Your task to perform on an android device: Go to privacy settings Image 0: 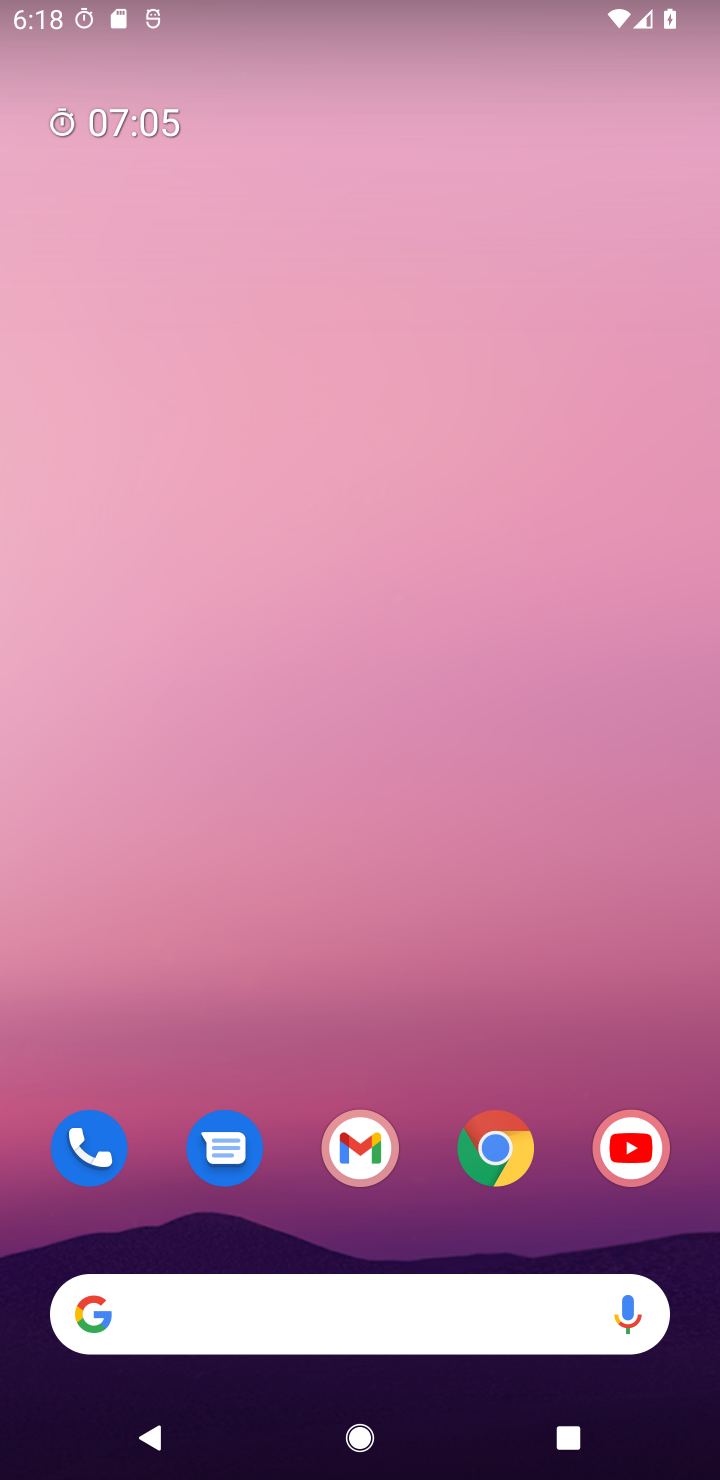
Step 0: drag from (353, 1233) to (447, 103)
Your task to perform on an android device: Go to privacy settings Image 1: 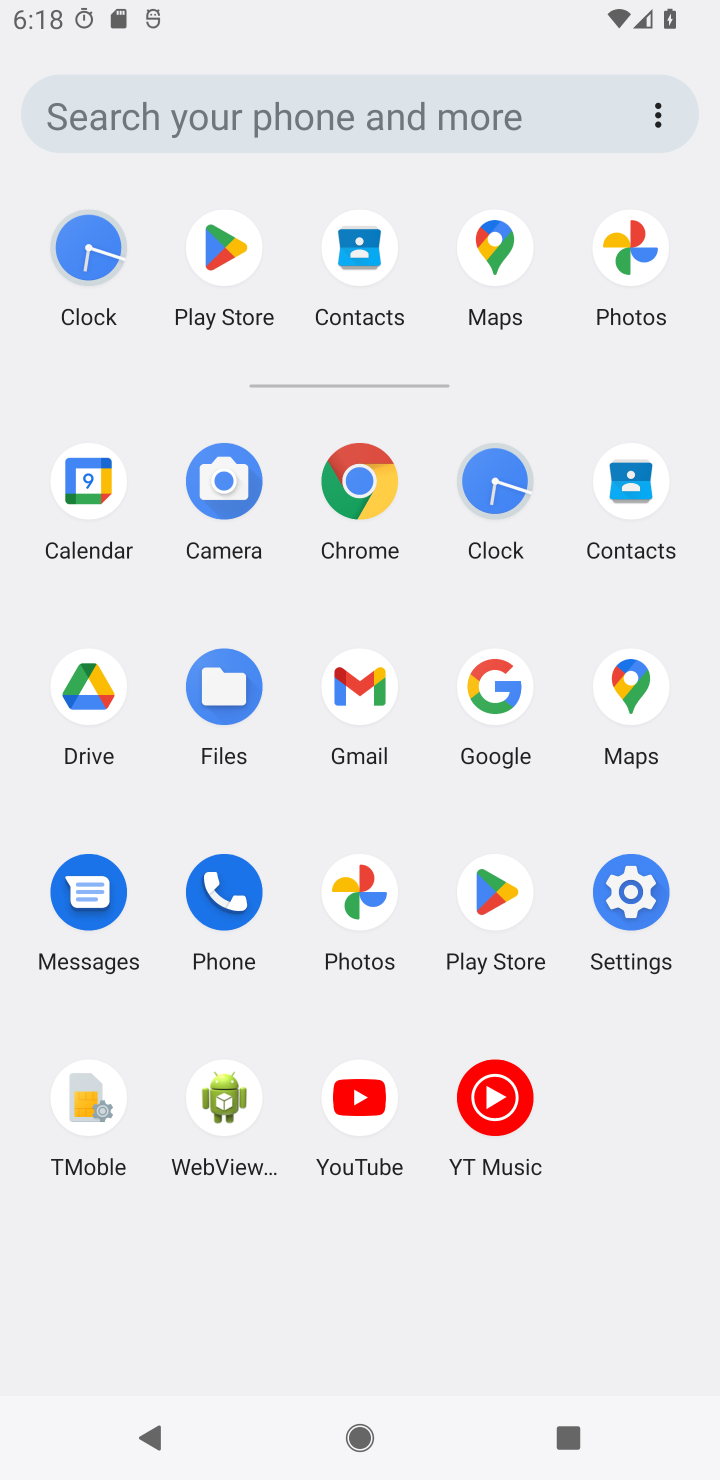
Step 1: click (646, 923)
Your task to perform on an android device: Go to privacy settings Image 2: 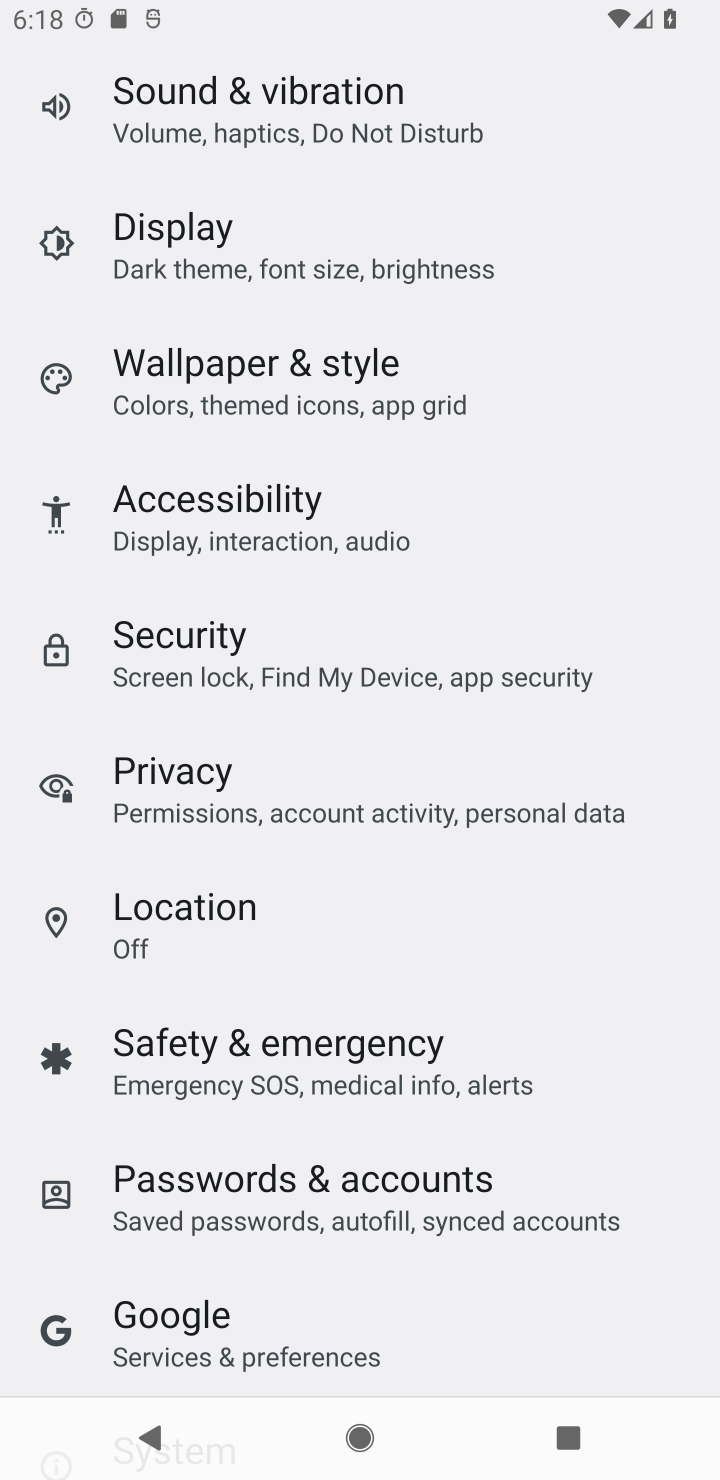
Step 2: click (299, 793)
Your task to perform on an android device: Go to privacy settings Image 3: 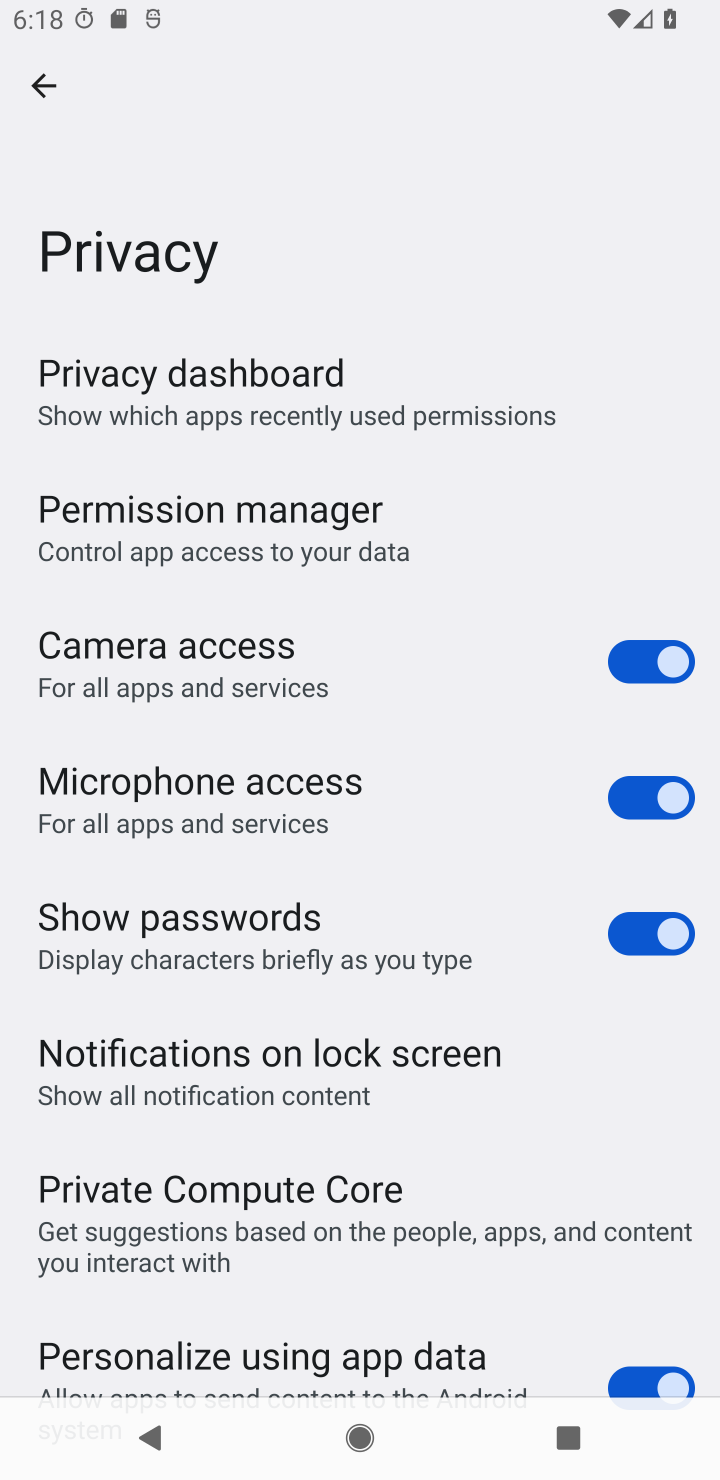
Step 3: task complete